Your task to perform on an android device: Search for sushi restaurants on Maps Image 0: 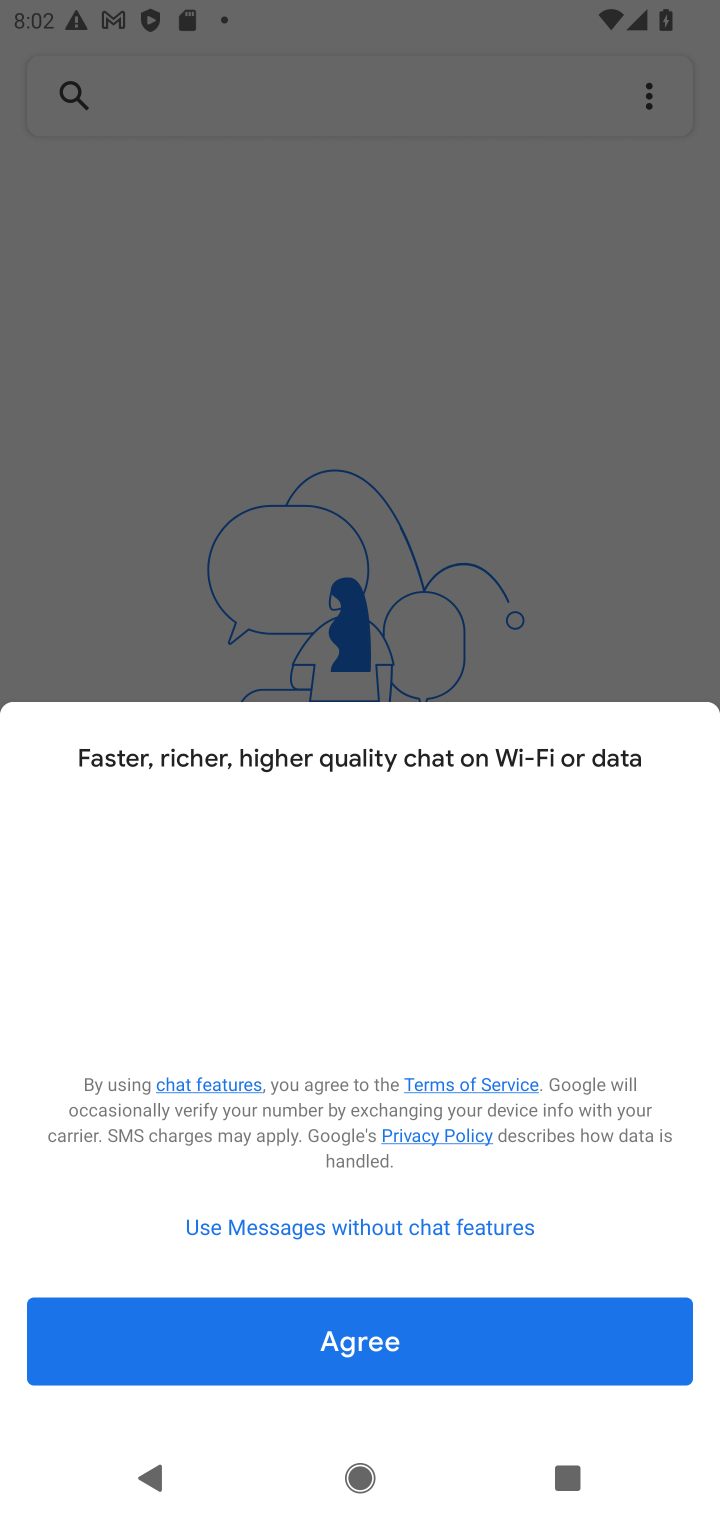
Step 0: press back button
Your task to perform on an android device: Search for sushi restaurants on Maps Image 1: 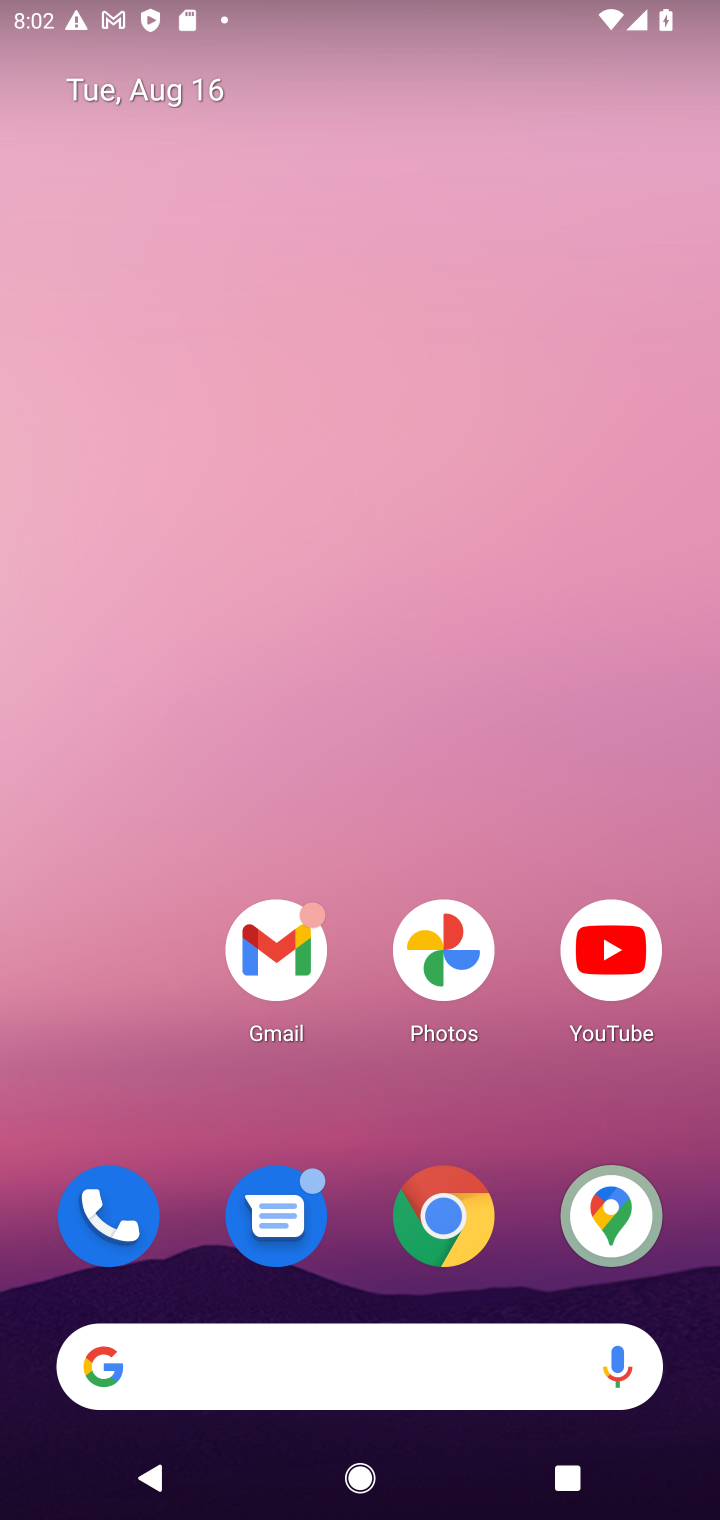
Step 1: click (643, 1229)
Your task to perform on an android device: Search for sushi restaurants on Maps Image 2: 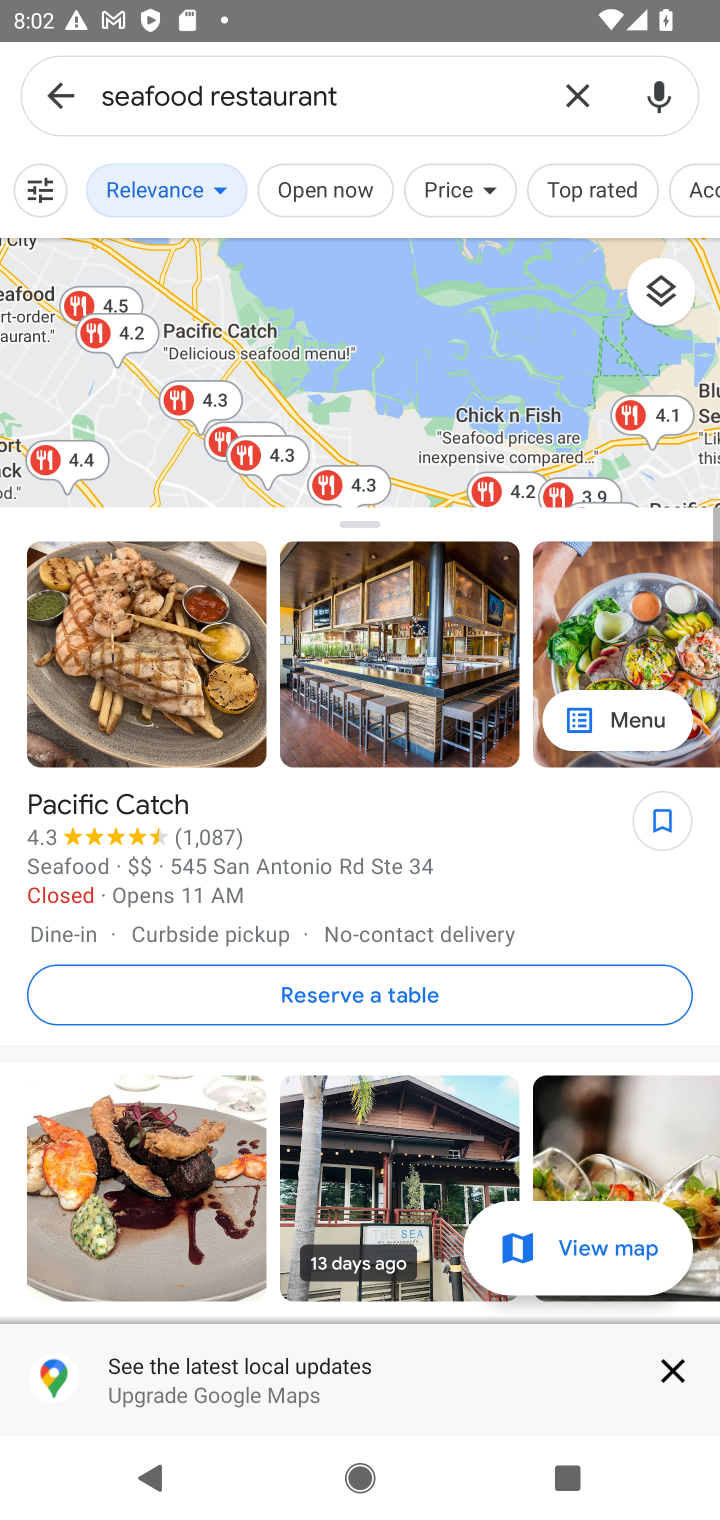
Step 2: click (55, 81)
Your task to perform on an android device: Search for sushi restaurants on Maps Image 3: 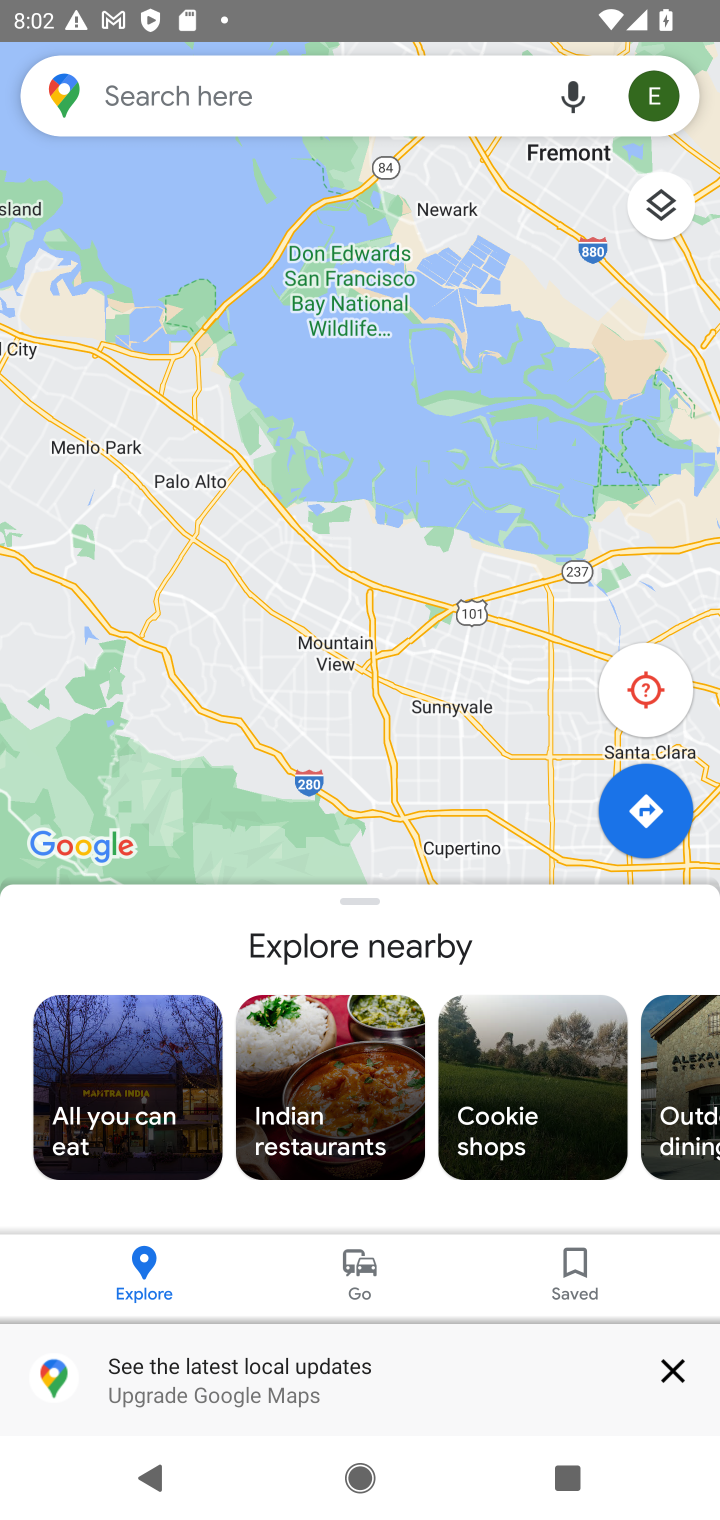
Step 3: click (331, 88)
Your task to perform on an android device: Search for sushi restaurants on Maps Image 4: 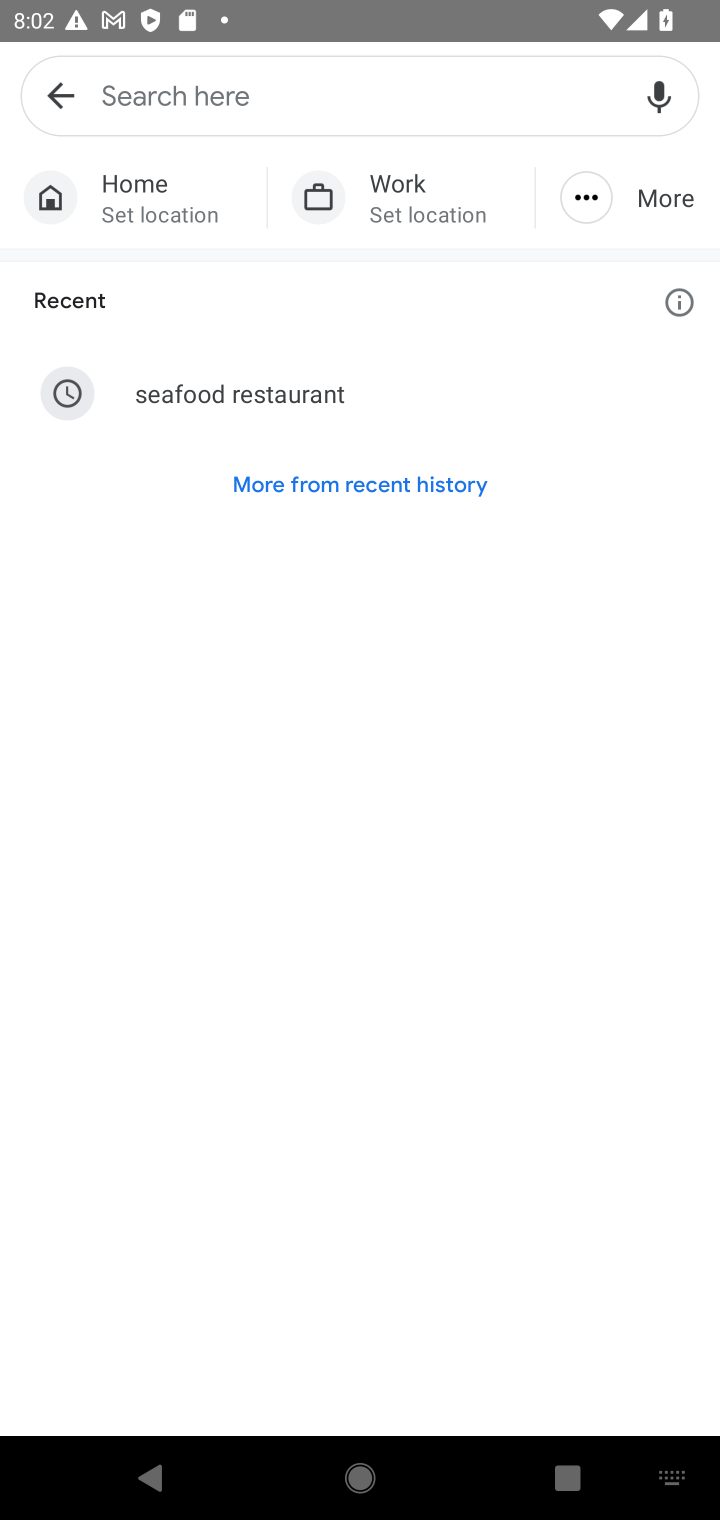
Step 4: type "sushi restaurants"
Your task to perform on an android device: Search for sushi restaurants on Maps Image 5: 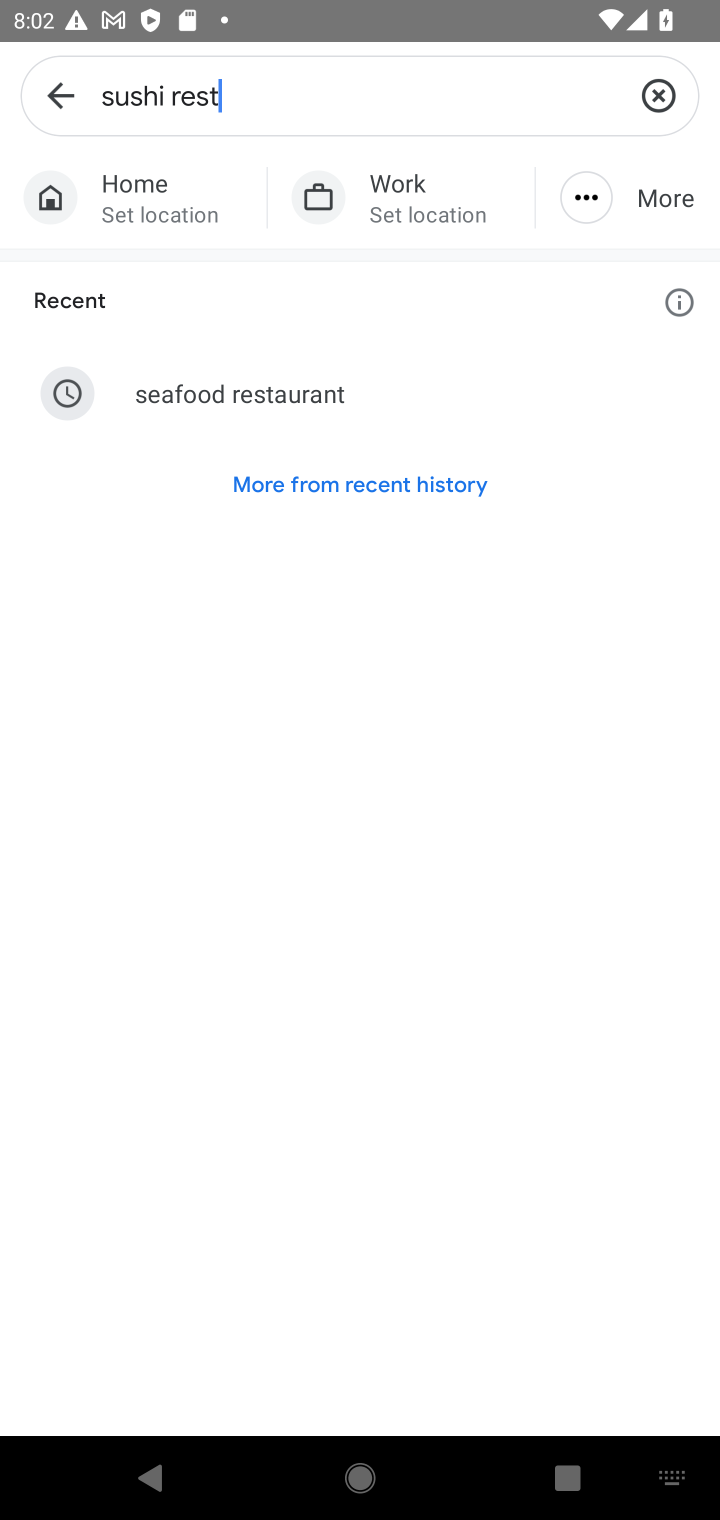
Step 5: type ""
Your task to perform on an android device: Search for sushi restaurants on Maps Image 6: 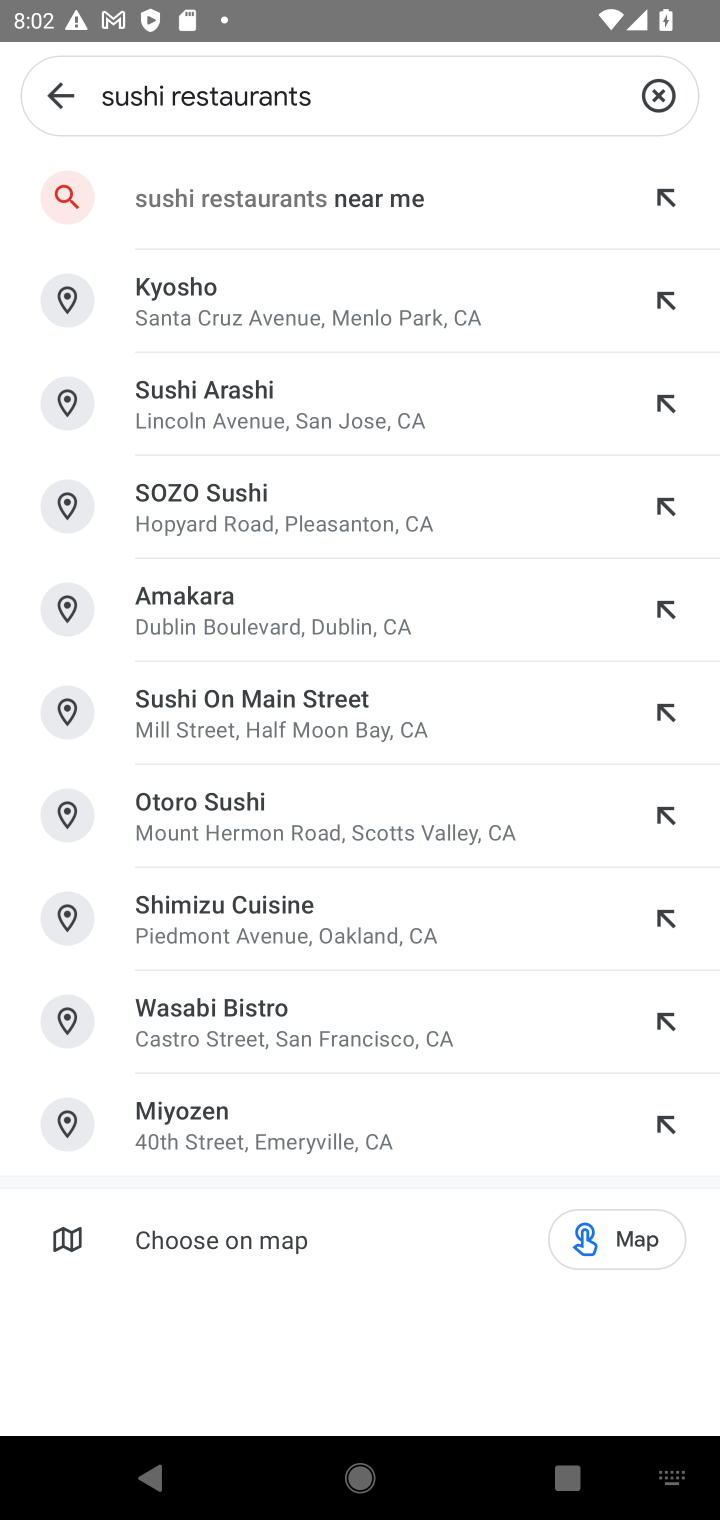
Step 6: click (161, 210)
Your task to perform on an android device: Search for sushi restaurants on Maps Image 7: 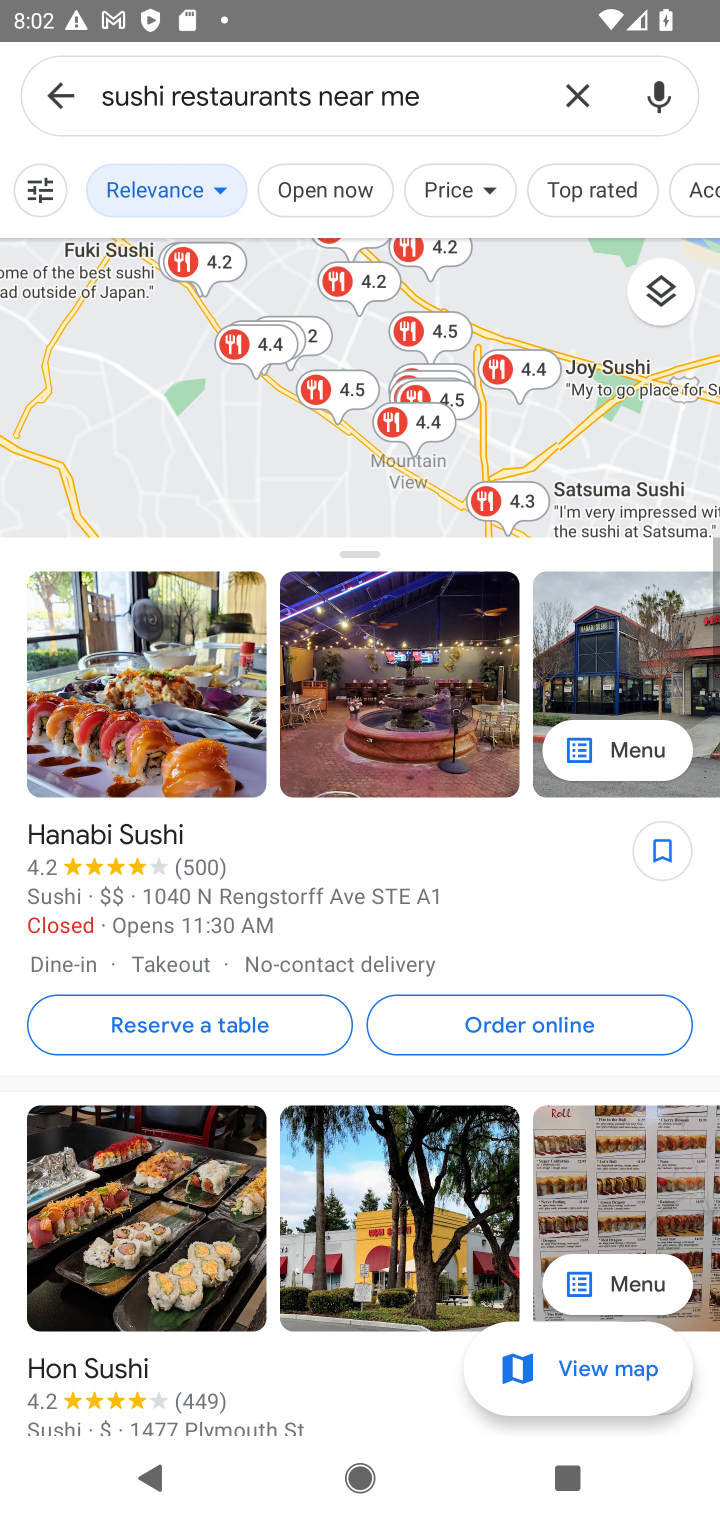
Step 7: task complete